Your task to perform on an android device: turn on wifi Image 0: 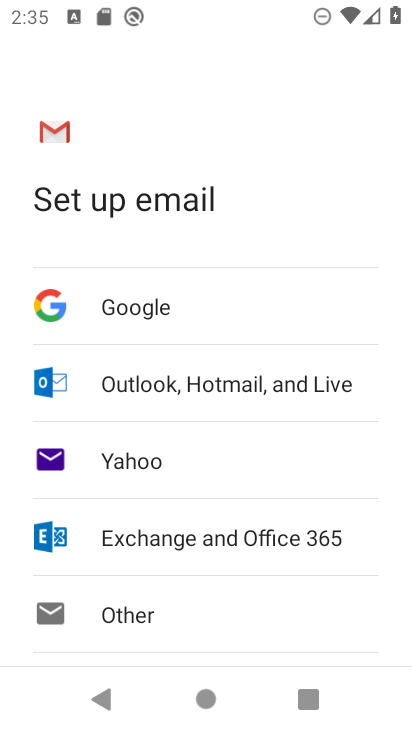
Step 0: task impossible